Your task to perform on an android device: turn pop-ups off in chrome Image 0: 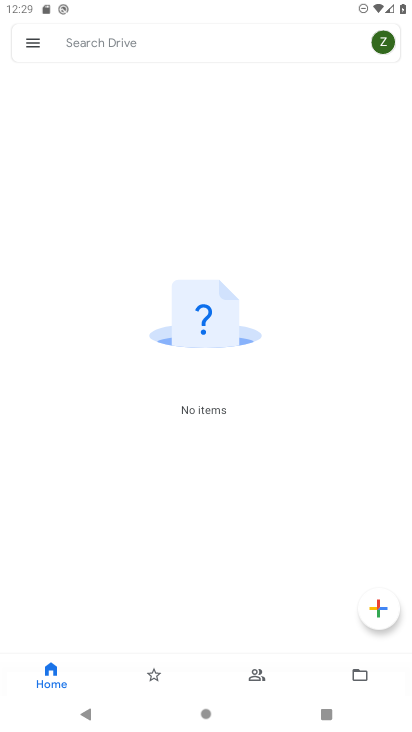
Step 0: press home button
Your task to perform on an android device: turn pop-ups off in chrome Image 1: 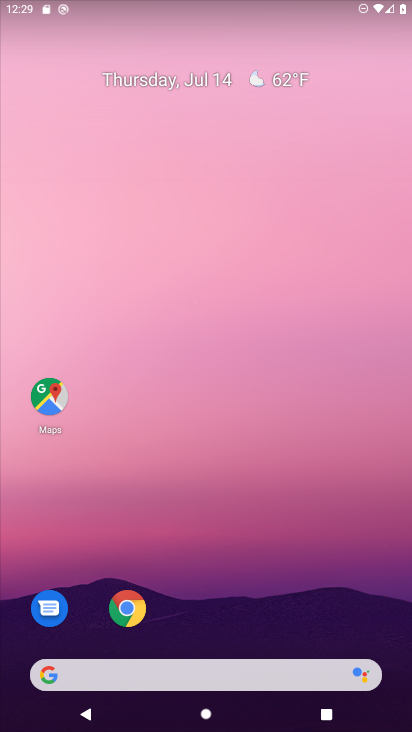
Step 1: click (125, 609)
Your task to perform on an android device: turn pop-ups off in chrome Image 2: 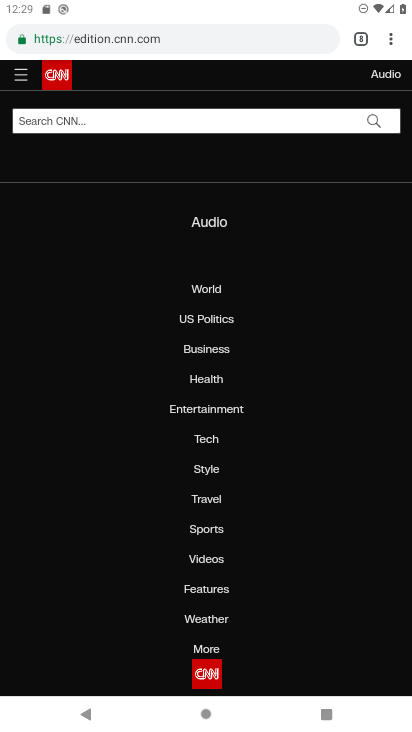
Step 2: click (390, 41)
Your task to perform on an android device: turn pop-ups off in chrome Image 3: 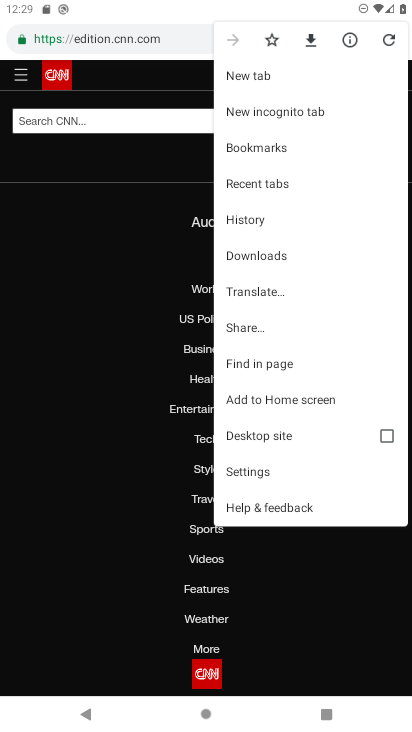
Step 3: click (254, 466)
Your task to perform on an android device: turn pop-ups off in chrome Image 4: 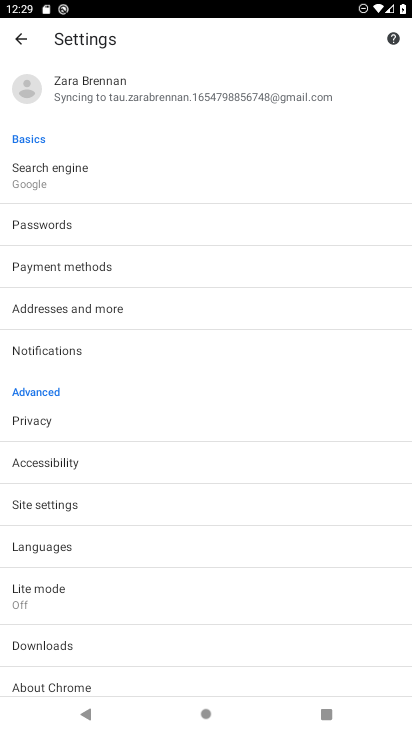
Step 4: click (49, 507)
Your task to perform on an android device: turn pop-ups off in chrome Image 5: 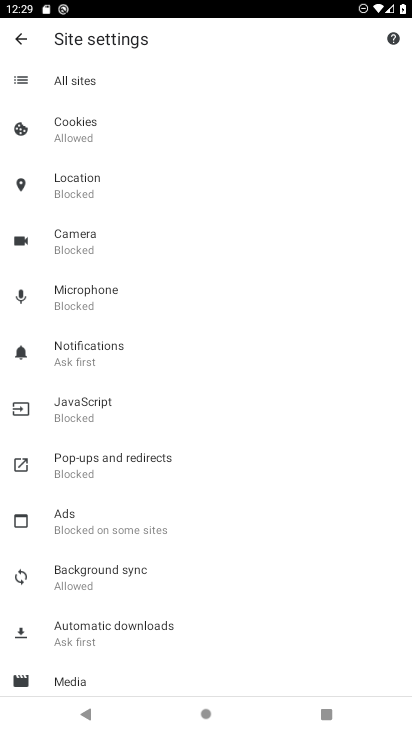
Step 5: click (62, 470)
Your task to perform on an android device: turn pop-ups off in chrome Image 6: 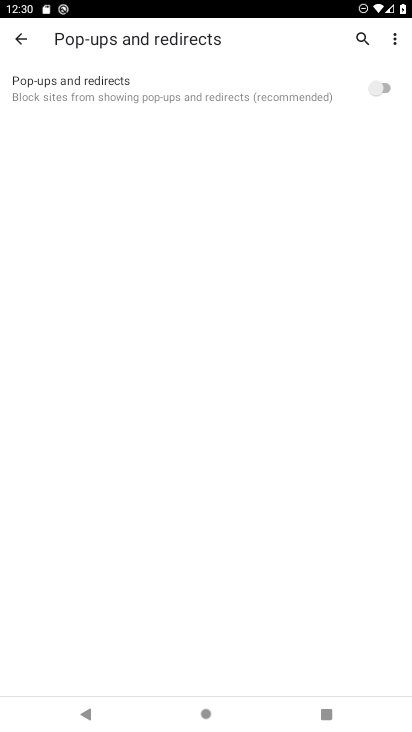
Step 6: task complete